Your task to perform on an android device: turn pop-ups on in chrome Image 0: 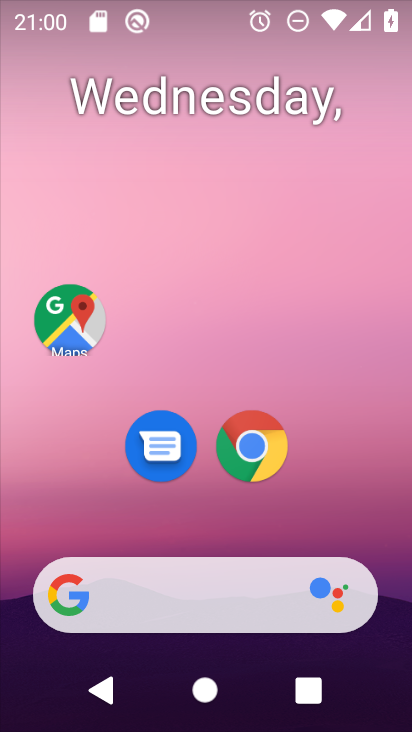
Step 0: click (233, 424)
Your task to perform on an android device: turn pop-ups on in chrome Image 1: 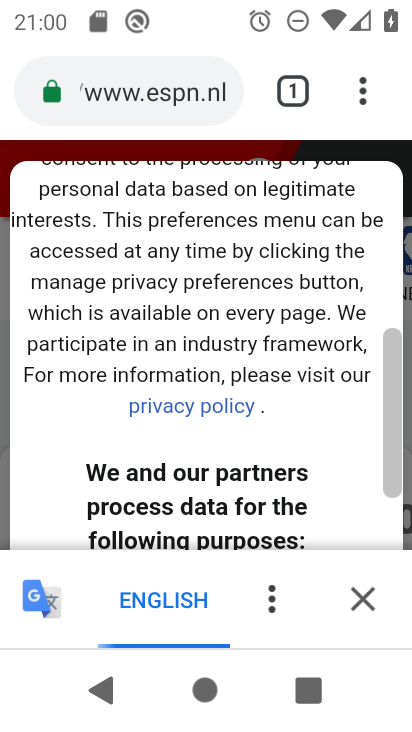
Step 1: drag from (361, 94) to (113, 466)
Your task to perform on an android device: turn pop-ups on in chrome Image 2: 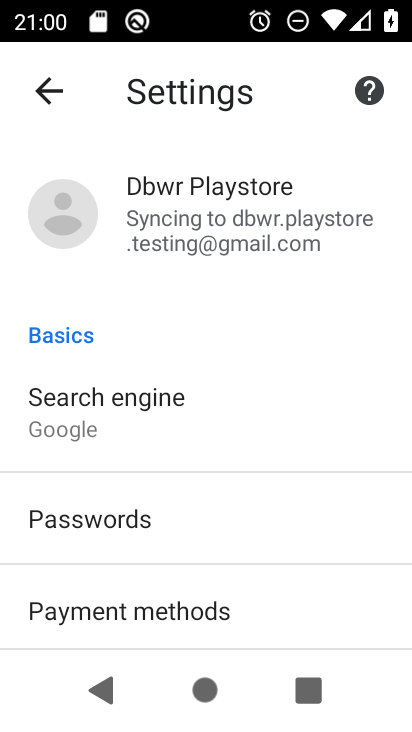
Step 2: drag from (145, 554) to (148, 154)
Your task to perform on an android device: turn pop-ups on in chrome Image 3: 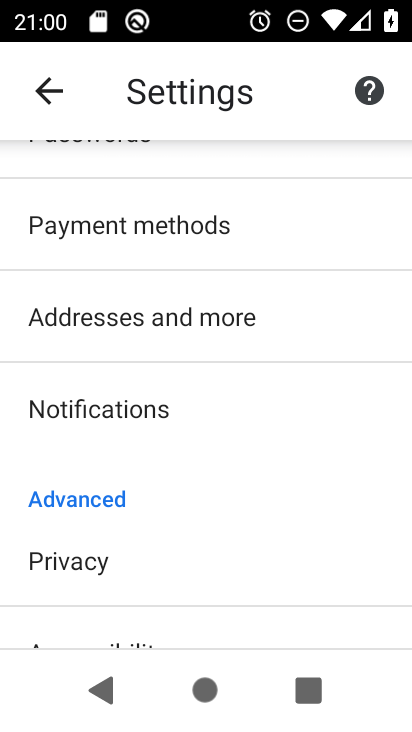
Step 3: drag from (188, 601) to (161, 314)
Your task to perform on an android device: turn pop-ups on in chrome Image 4: 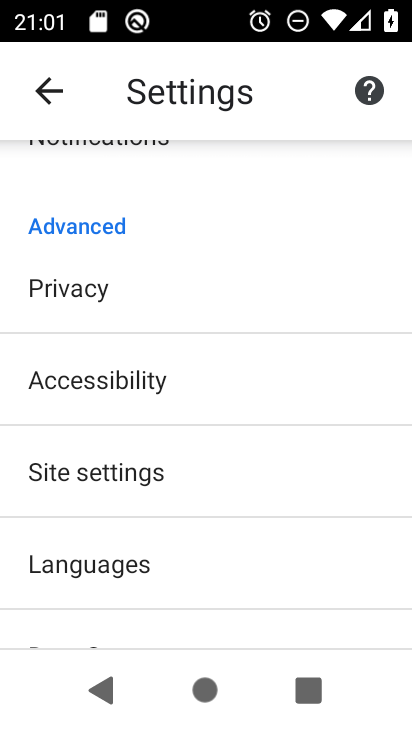
Step 4: click (124, 472)
Your task to perform on an android device: turn pop-ups on in chrome Image 5: 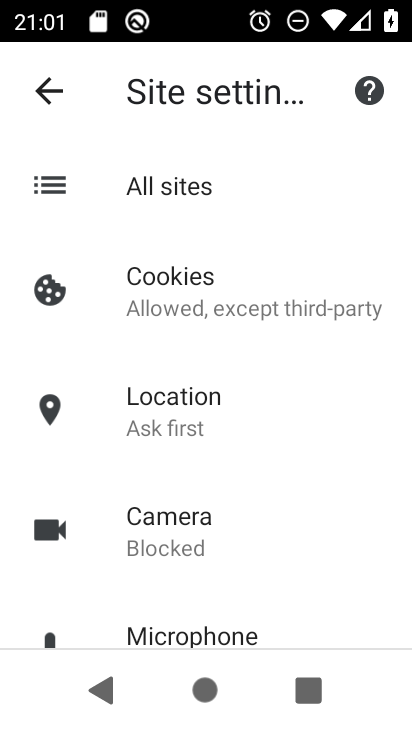
Step 5: drag from (190, 579) to (176, 139)
Your task to perform on an android device: turn pop-ups on in chrome Image 6: 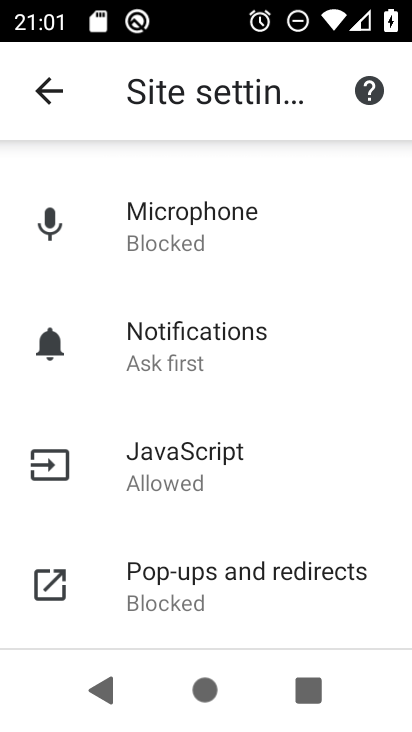
Step 6: click (179, 579)
Your task to perform on an android device: turn pop-ups on in chrome Image 7: 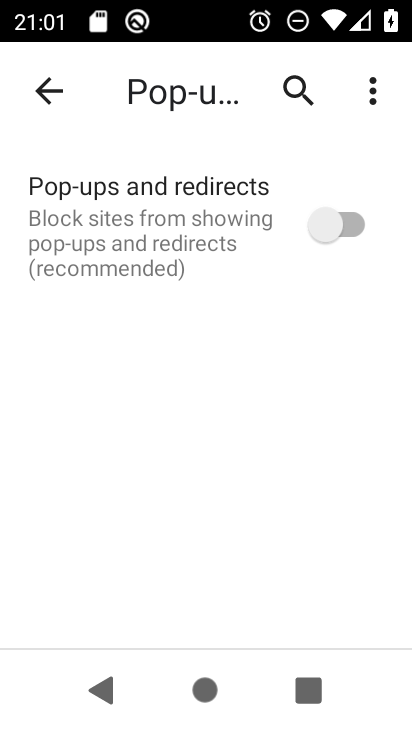
Step 7: click (337, 223)
Your task to perform on an android device: turn pop-ups on in chrome Image 8: 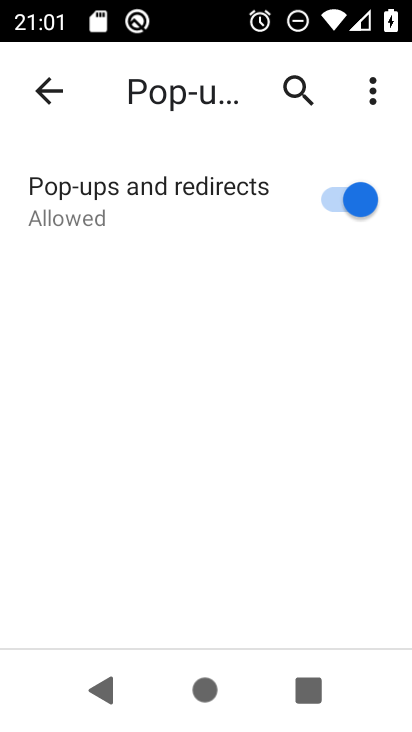
Step 8: task complete